Your task to perform on an android device: turn off improve location accuracy Image 0: 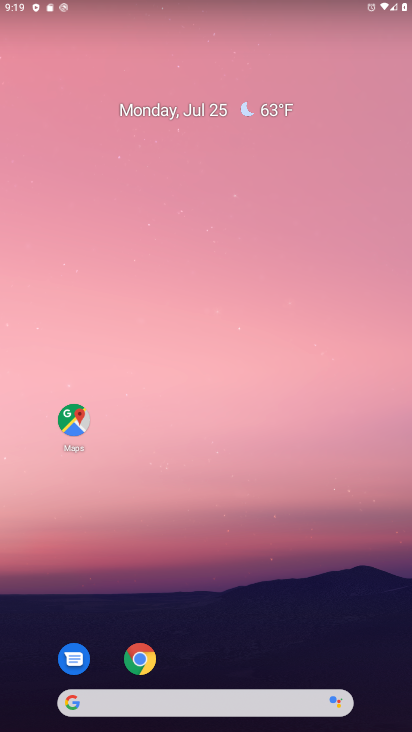
Step 0: drag from (219, 731) to (209, 15)
Your task to perform on an android device: turn off improve location accuracy Image 1: 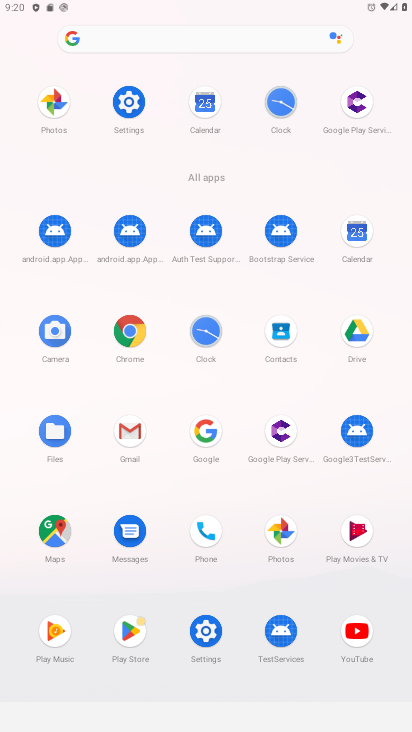
Step 1: click (126, 103)
Your task to perform on an android device: turn off improve location accuracy Image 2: 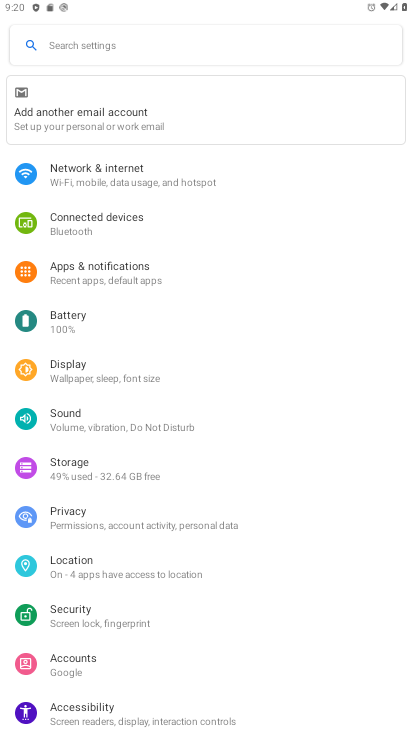
Step 2: click (64, 562)
Your task to perform on an android device: turn off improve location accuracy Image 3: 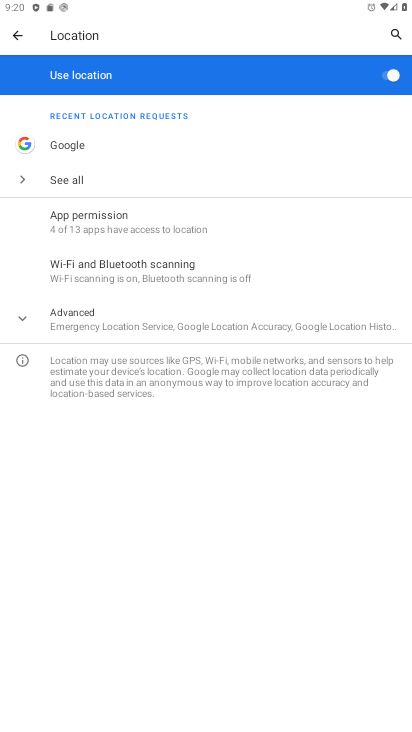
Step 3: click (77, 321)
Your task to perform on an android device: turn off improve location accuracy Image 4: 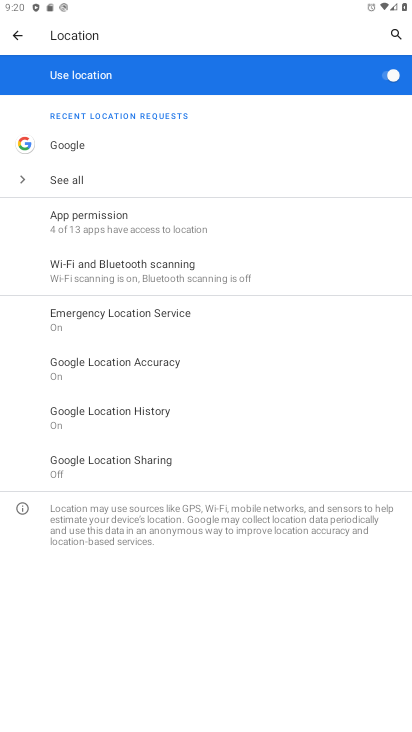
Step 4: click (123, 363)
Your task to perform on an android device: turn off improve location accuracy Image 5: 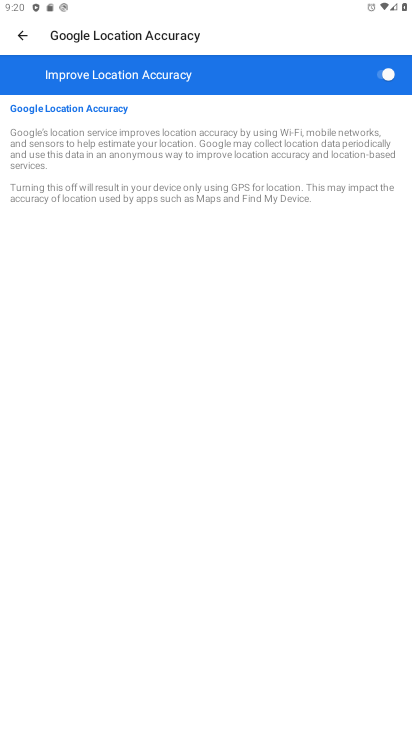
Step 5: click (382, 78)
Your task to perform on an android device: turn off improve location accuracy Image 6: 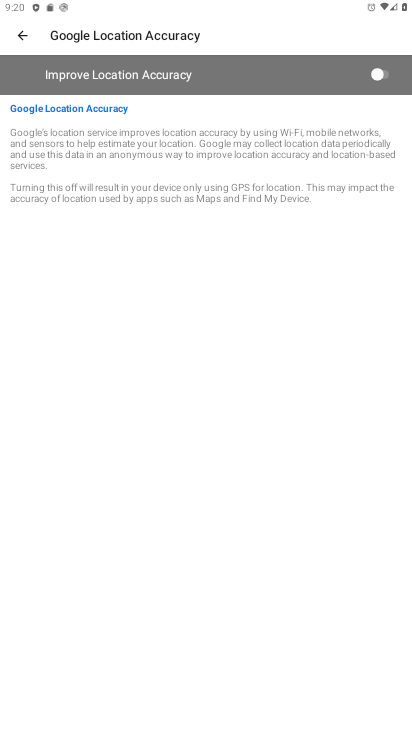
Step 6: task complete